Your task to perform on an android device: set an alarm Image 0: 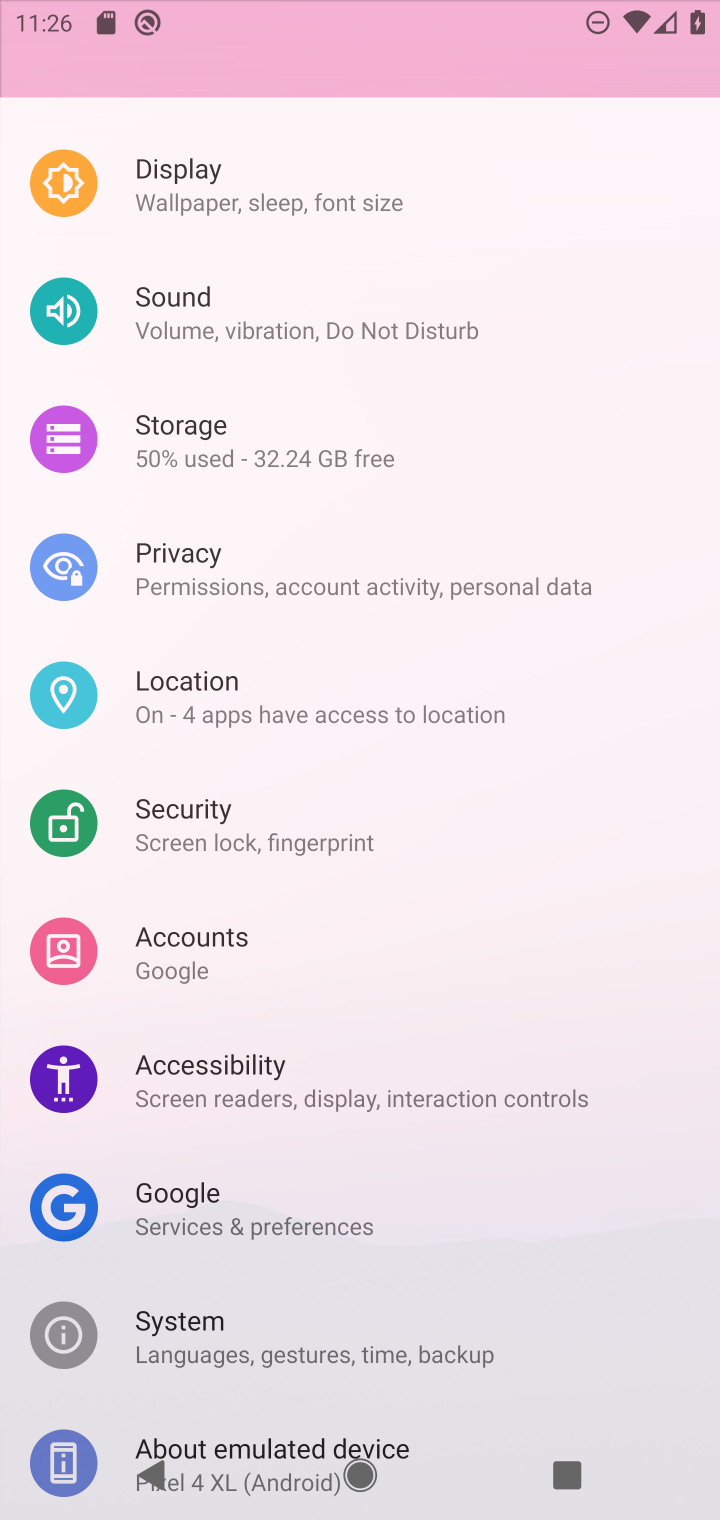
Step 0: press home button
Your task to perform on an android device: set an alarm Image 1: 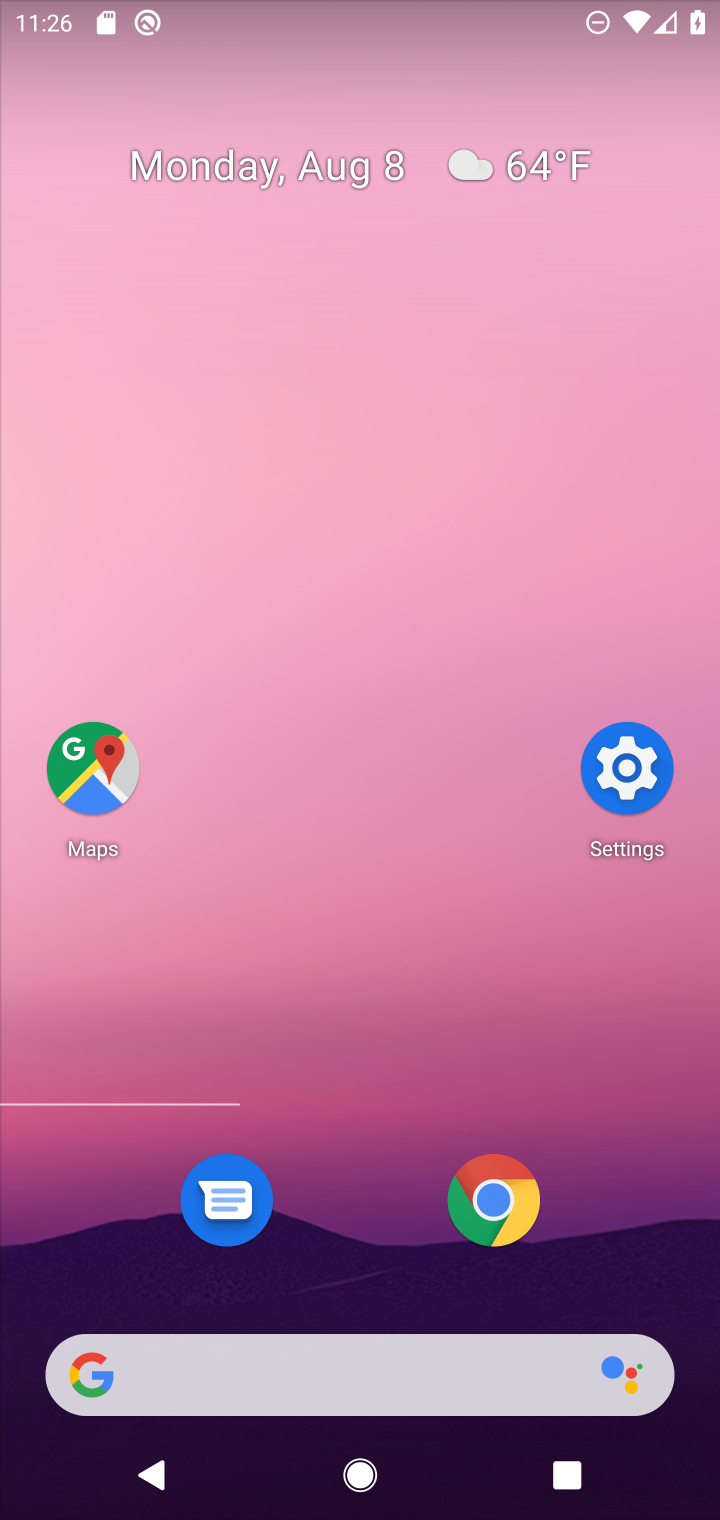
Step 1: drag from (304, 1374) to (630, 9)
Your task to perform on an android device: set an alarm Image 2: 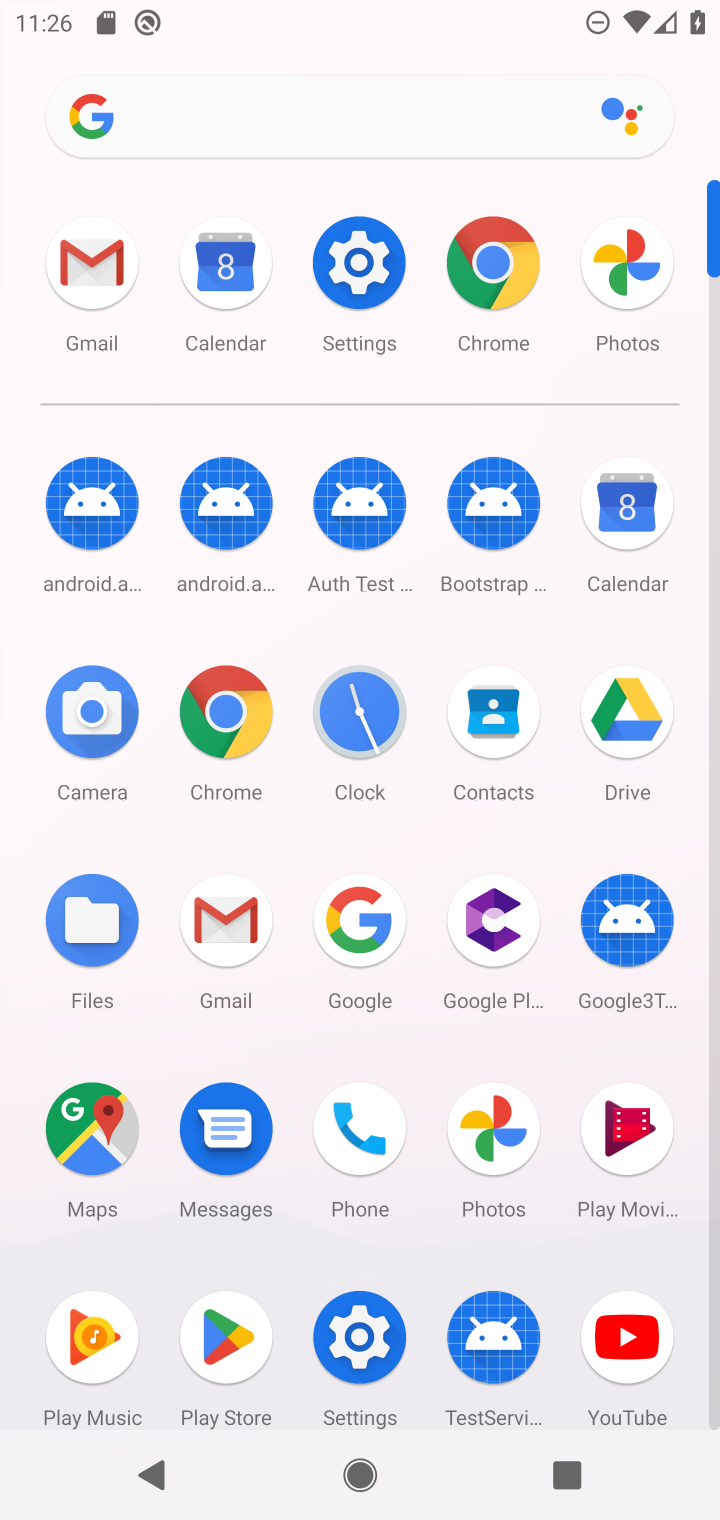
Step 2: click (348, 700)
Your task to perform on an android device: set an alarm Image 3: 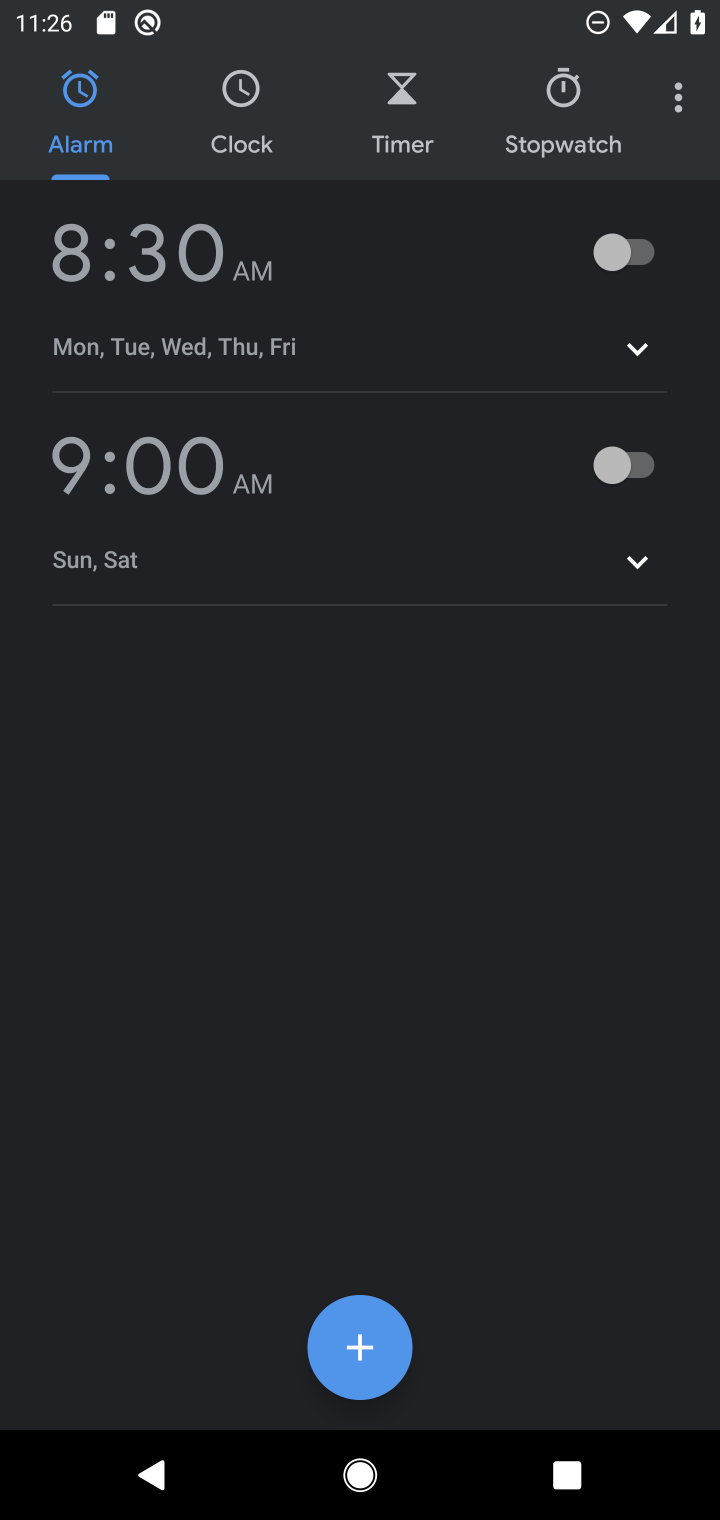
Step 3: click (626, 255)
Your task to perform on an android device: set an alarm Image 4: 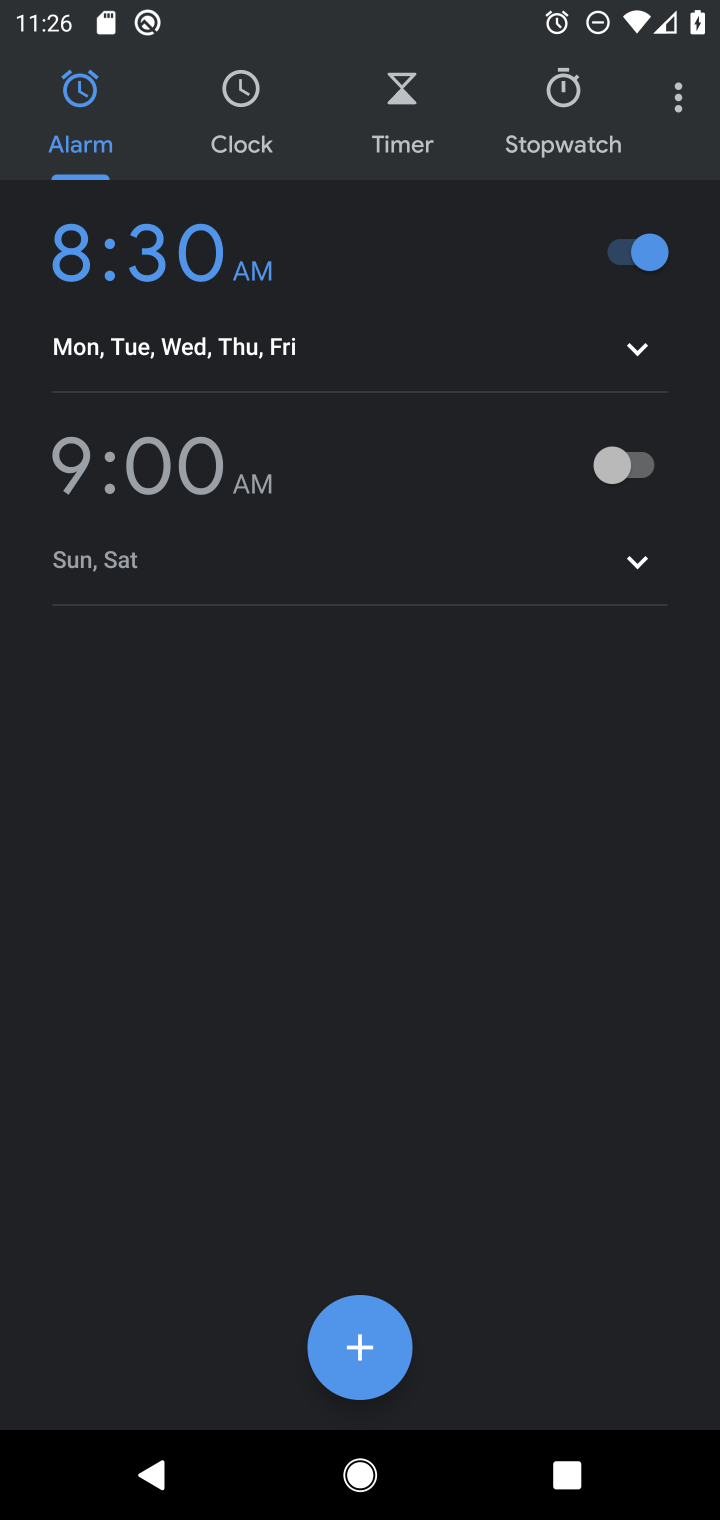
Step 4: task complete